Your task to perform on an android device: Open wifi settings Image 0: 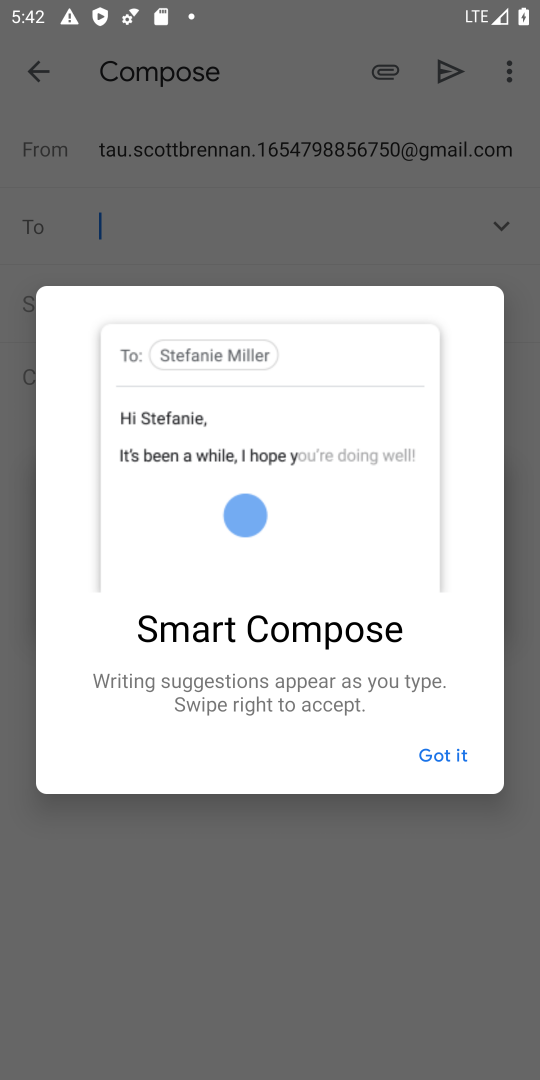
Step 0: press home button
Your task to perform on an android device: Open wifi settings Image 1: 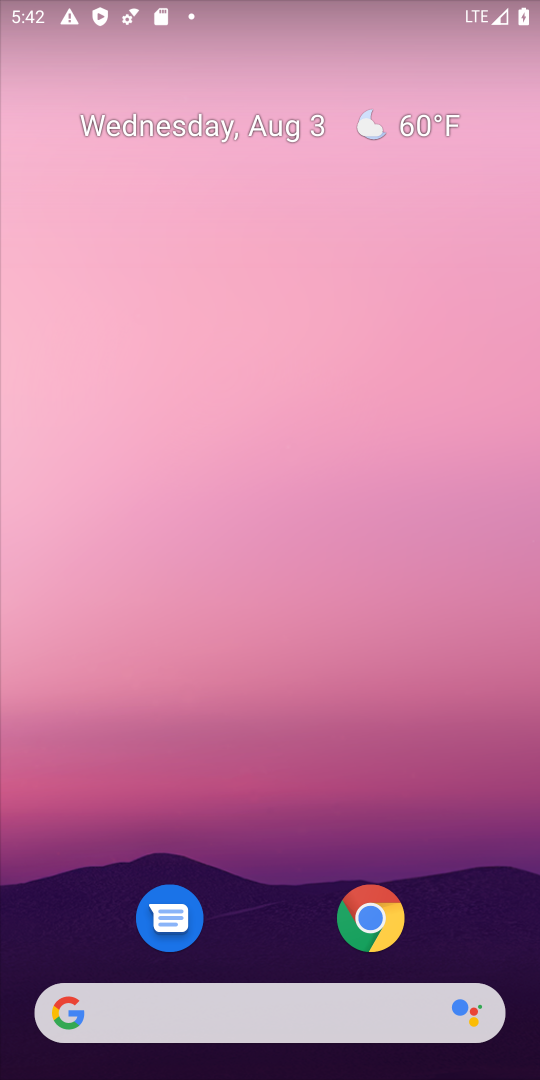
Step 1: drag from (317, 996) to (338, 196)
Your task to perform on an android device: Open wifi settings Image 2: 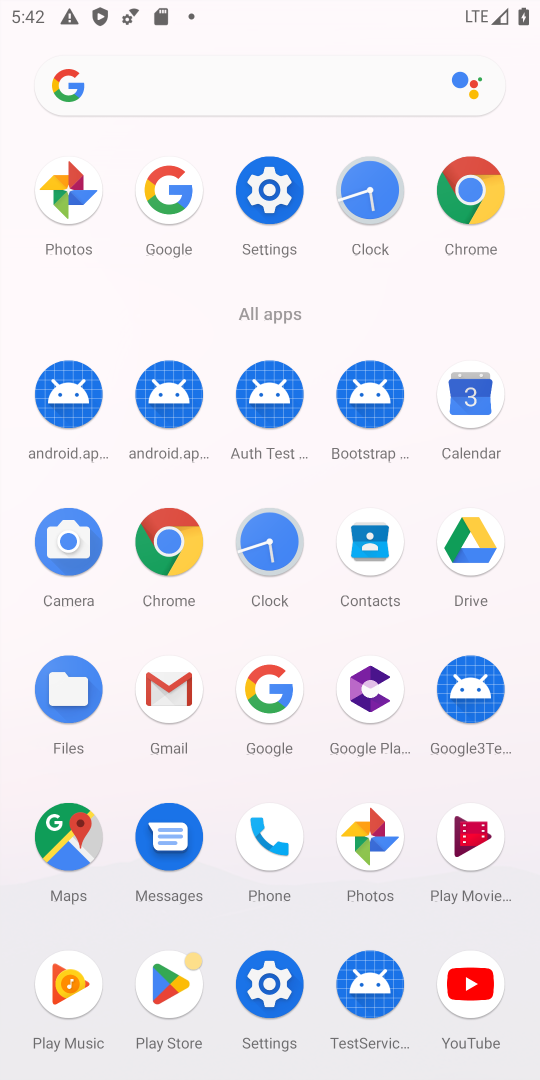
Step 2: click (272, 177)
Your task to perform on an android device: Open wifi settings Image 3: 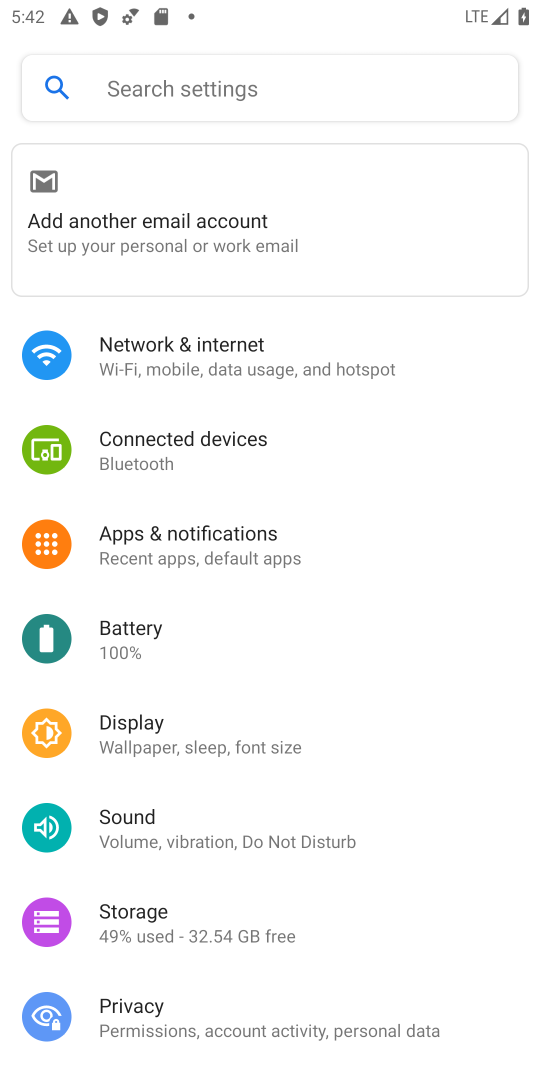
Step 3: click (179, 372)
Your task to perform on an android device: Open wifi settings Image 4: 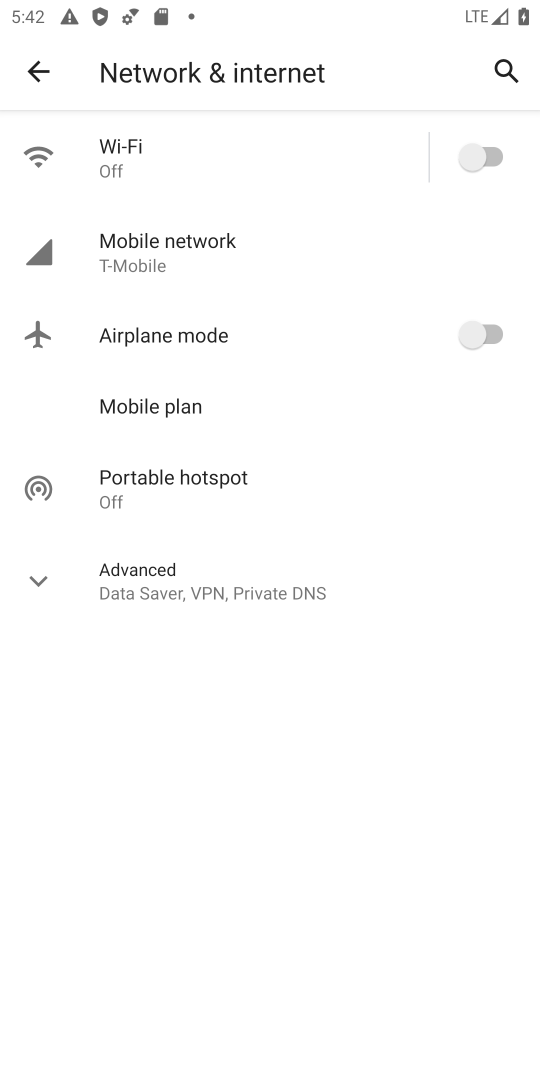
Step 4: click (129, 163)
Your task to perform on an android device: Open wifi settings Image 5: 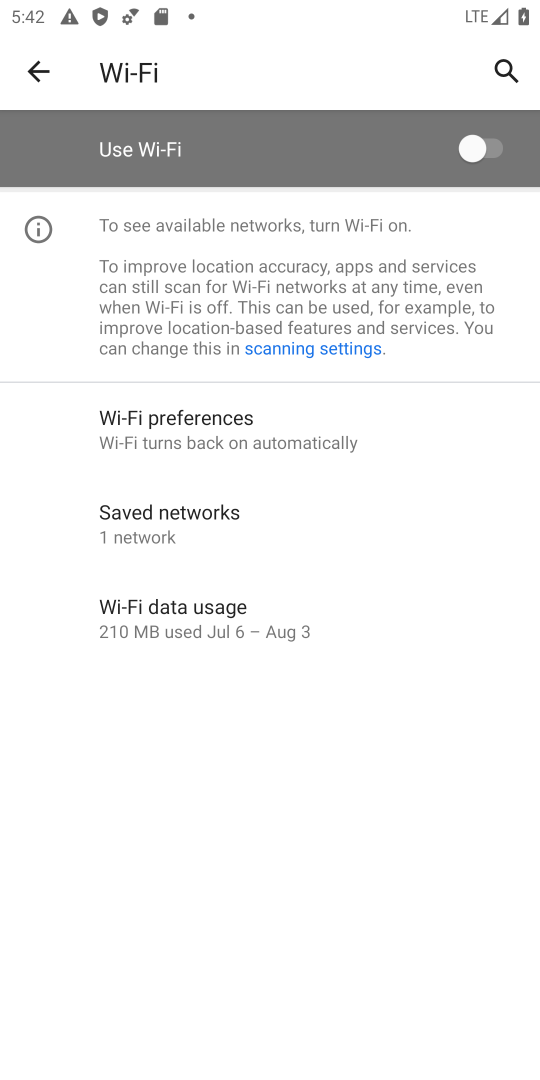
Step 5: task complete